Your task to perform on an android device: turn off location Image 0: 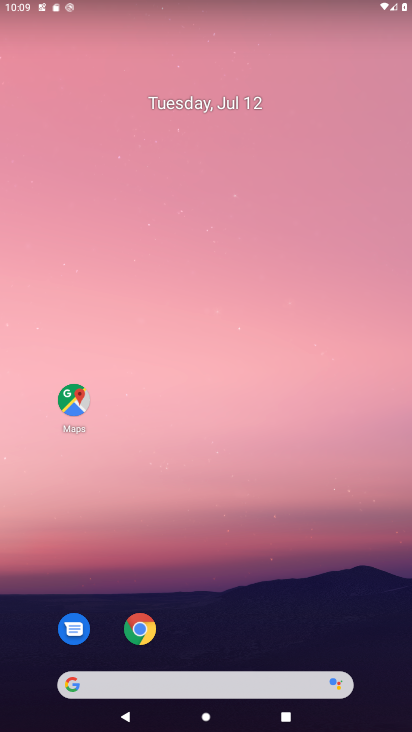
Step 0: drag from (244, 674) to (338, 35)
Your task to perform on an android device: turn off location Image 1: 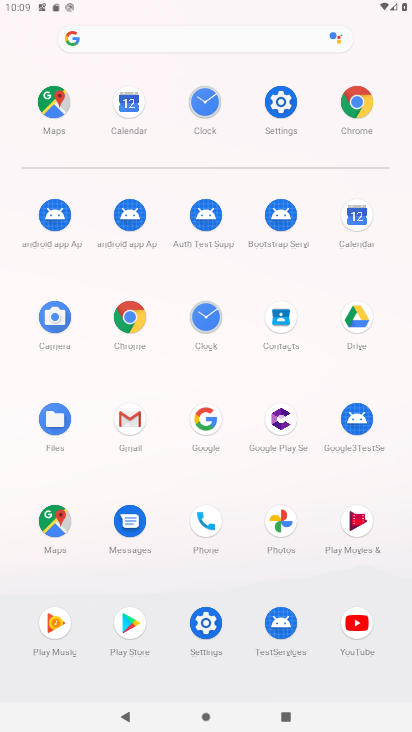
Step 1: click (290, 91)
Your task to perform on an android device: turn off location Image 2: 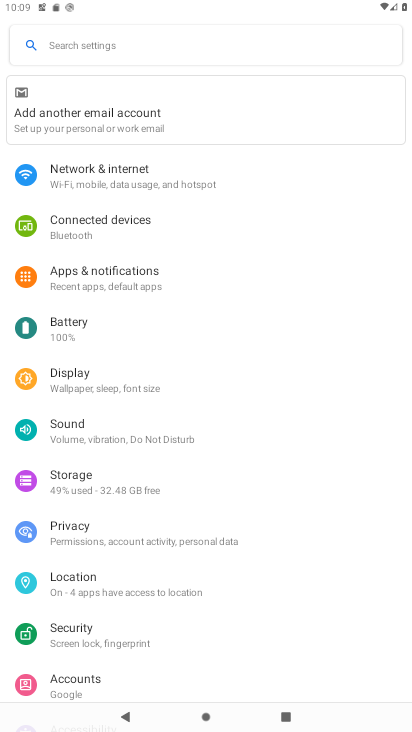
Step 2: click (109, 583)
Your task to perform on an android device: turn off location Image 3: 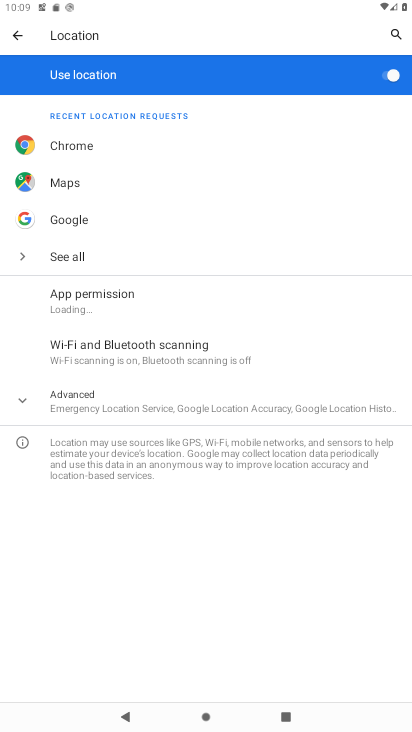
Step 3: click (387, 74)
Your task to perform on an android device: turn off location Image 4: 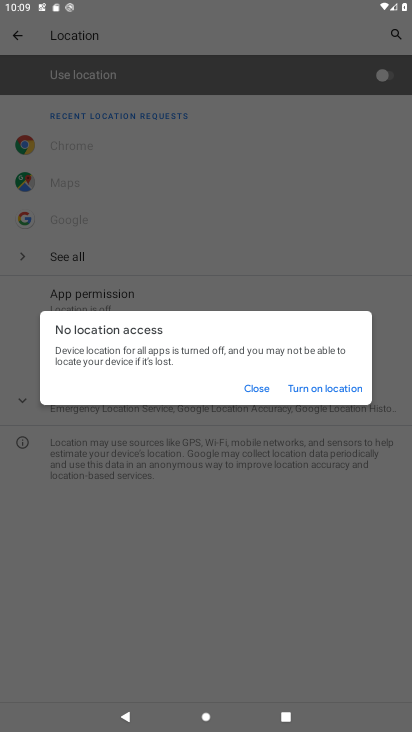
Step 4: task complete